Your task to perform on an android device: check battery use Image 0: 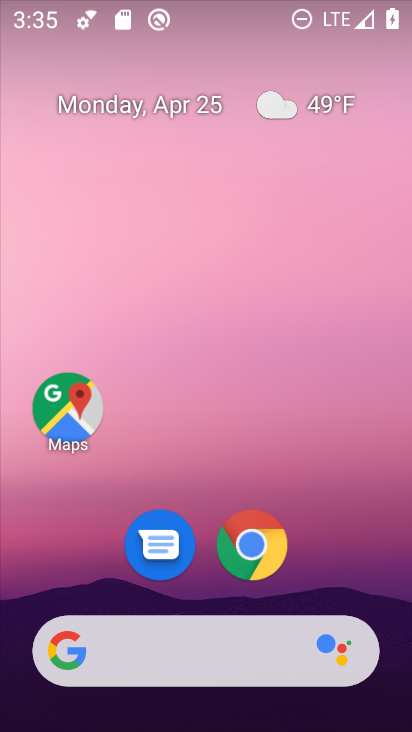
Step 0: drag from (348, 546) to (154, 0)
Your task to perform on an android device: check battery use Image 1: 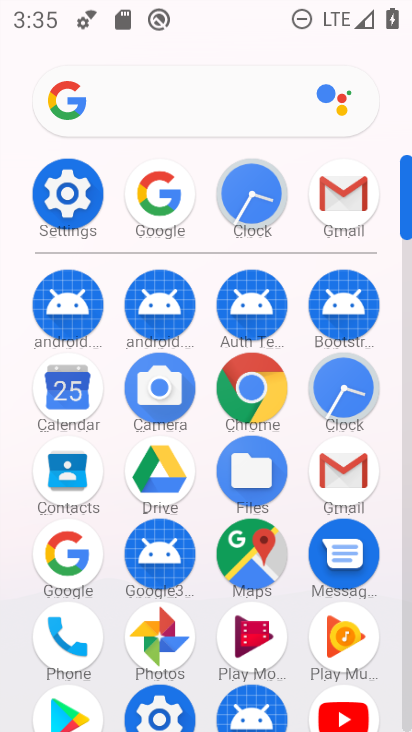
Step 1: click (77, 208)
Your task to perform on an android device: check battery use Image 2: 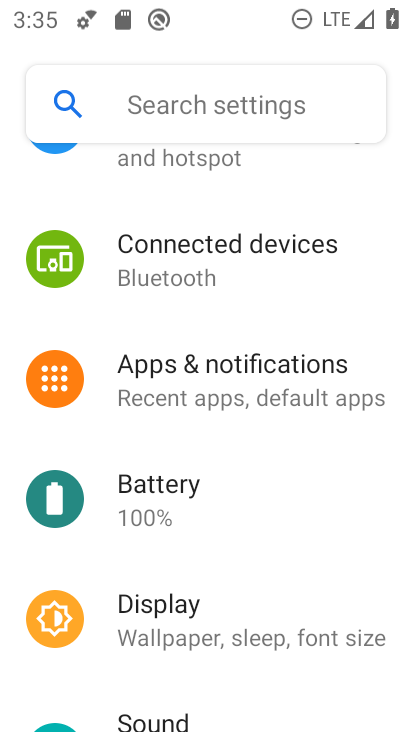
Step 2: click (250, 485)
Your task to perform on an android device: check battery use Image 3: 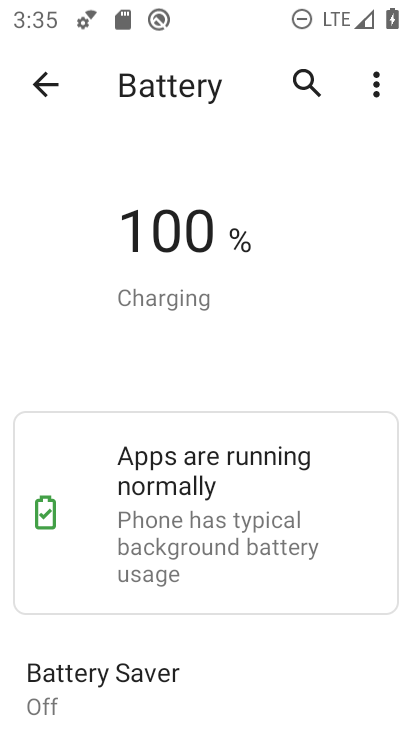
Step 3: click (377, 82)
Your task to perform on an android device: check battery use Image 4: 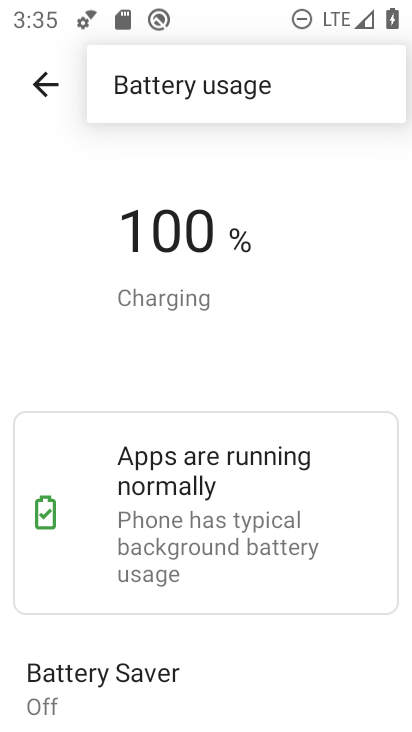
Step 4: click (293, 89)
Your task to perform on an android device: check battery use Image 5: 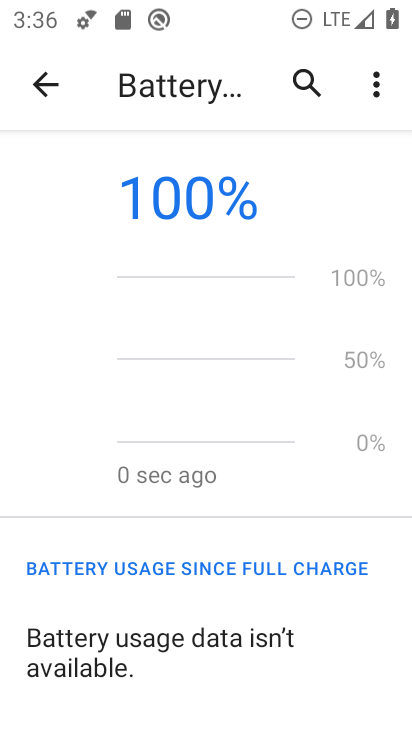
Step 5: task complete